Your task to perform on an android device: Go to Amazon Image 0: 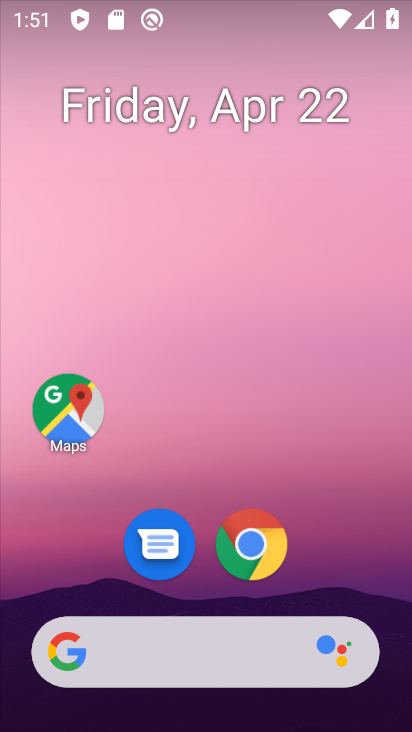
Step 0: click (249, 548)
Your task to perform on an android device: Go to Amazon Image 1: 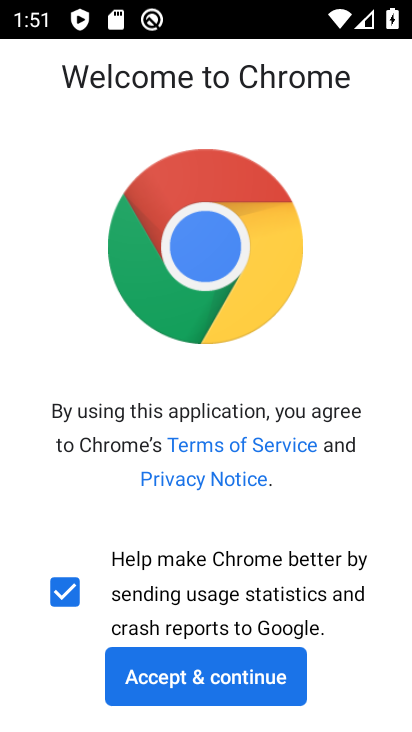
Step 1: click (215, 665)
Your task to perform on an android device: Go to Amazon Image 2: 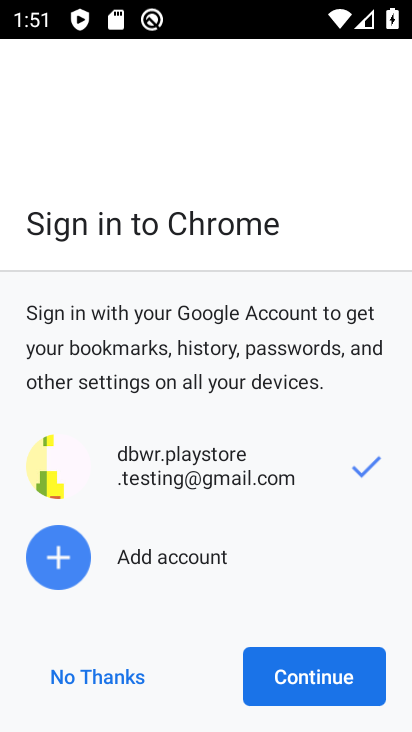
Step 2: click (312, 697)
Your task to perform on an android device: Go to Amazon Image 3: 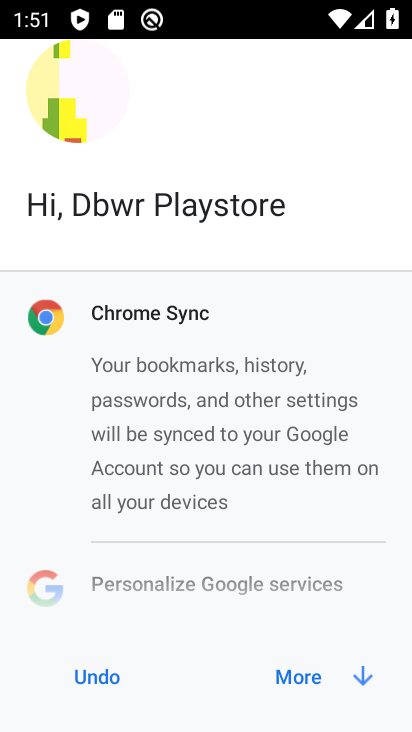
Step 3: click (320, 686)
Your task to perform on an android device: Go to Amazon Image 4: 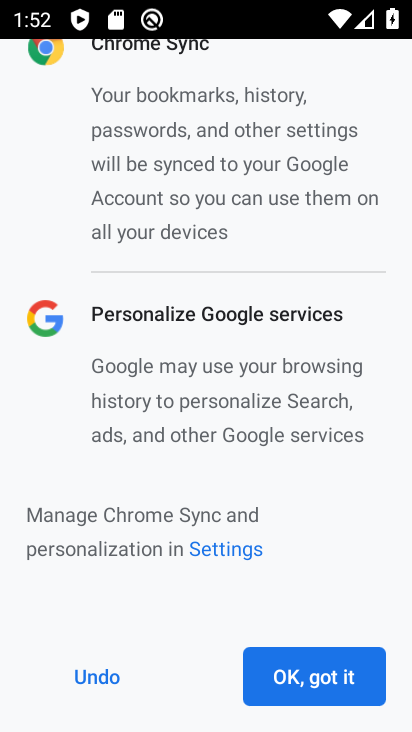
Step 4: click (327, 693)
Your task to perform on an android device: Go to Amazon Image 5: 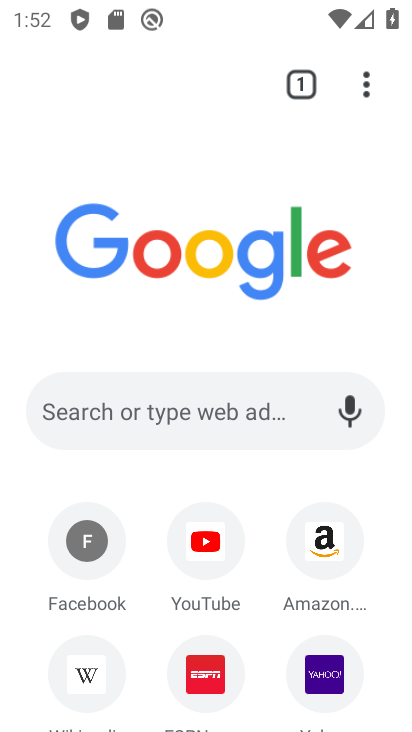
Step 5: click (312, 531)
Your task to perform on an android device: Go to Amazon Image 6: 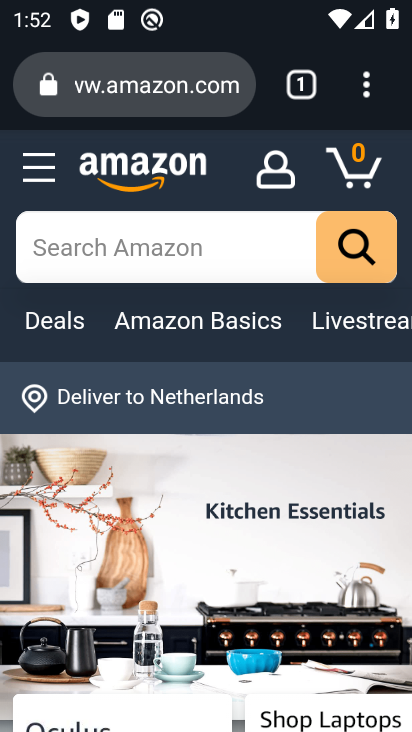
Step 6: task complete